Your task to perform on an android device: Open Yahoo.com Image 0: 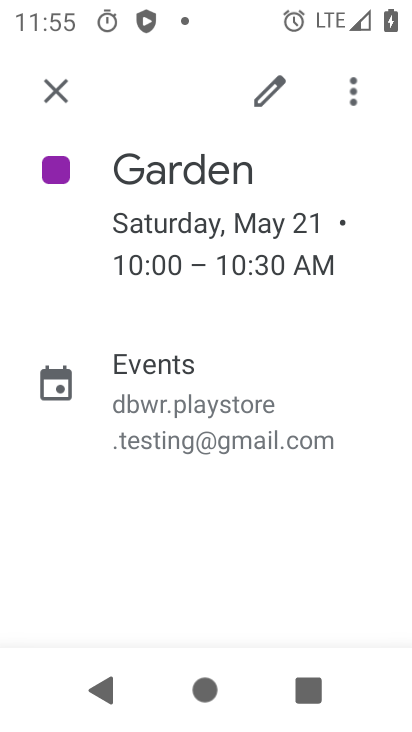
Step 0: press home button
Your task to perform on an android device: Open Yahoo.com Image 1: 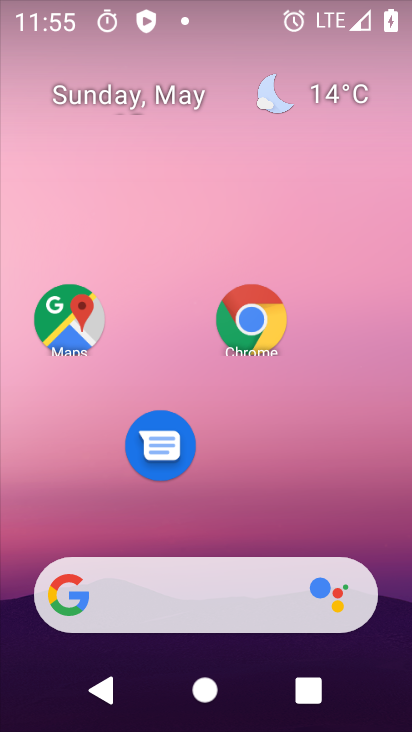
Step 1: click (264, 329)
Your task to perform on an android device: Open Yahoo.com Image 2: 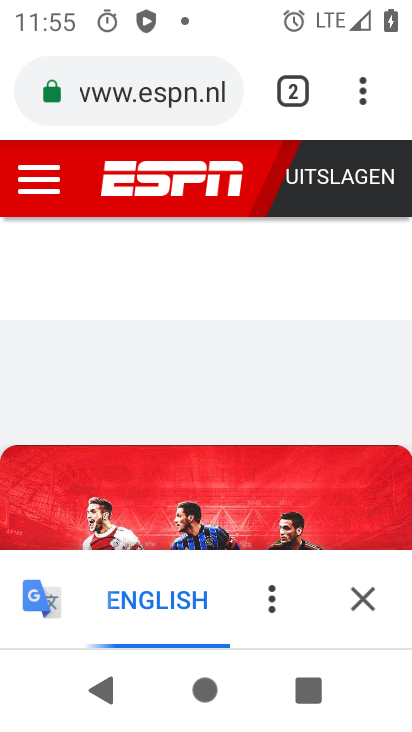
Step 2: drag from (358, 101) to (225, 181)
Your task to perform on an android device: Open Yahoo.com Image 3: 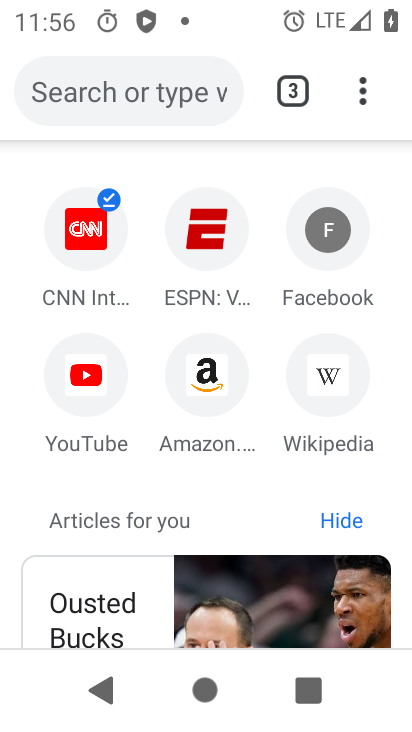
Step 3: click (147, 88)
Your task to perform on an android device: Open Yahoo.com Image 4: 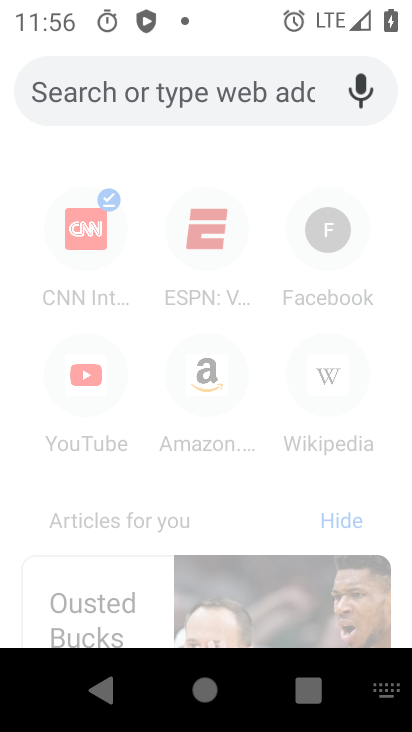
Step 4: type "yahoo.com"
Your task to perform on an android device: Open Yahoo.com Image 5: 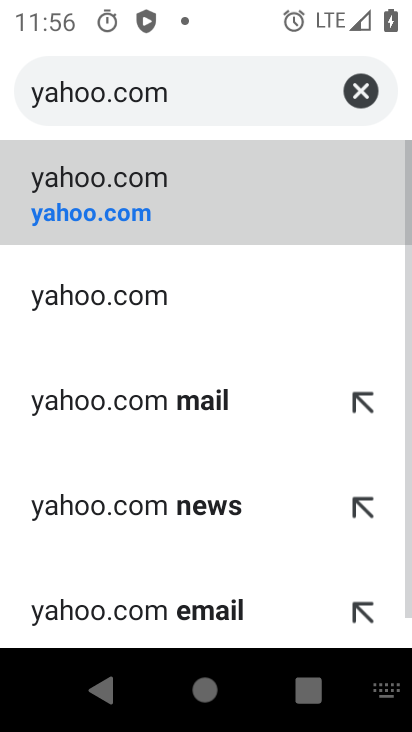
Step 5: click (123, 185)
Your task to perform on an android device: Open Yahoo.com Image 6: 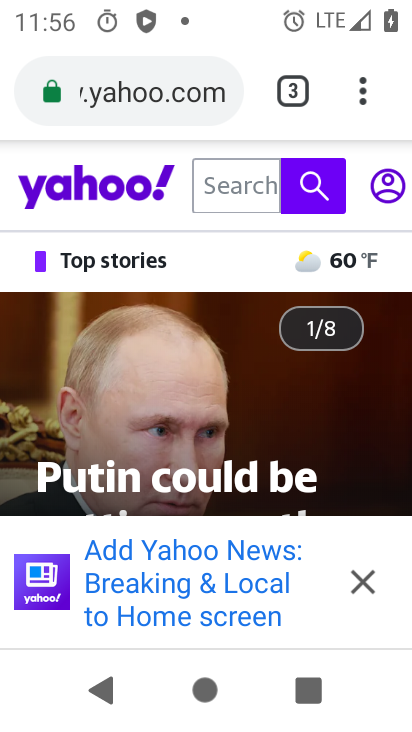
Step 6: task complete